Your task to perform on an android device: toggle wifi Image 0: 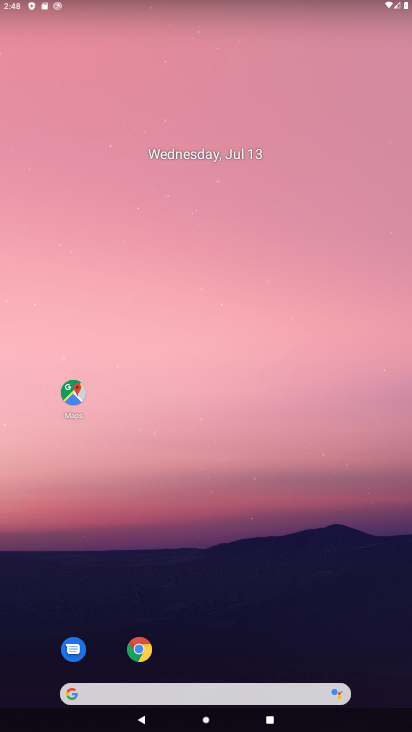
Step 0: drag from (206, 668) to (248, 19)
Your task to perform on an android device: toggle wifi Image 1: 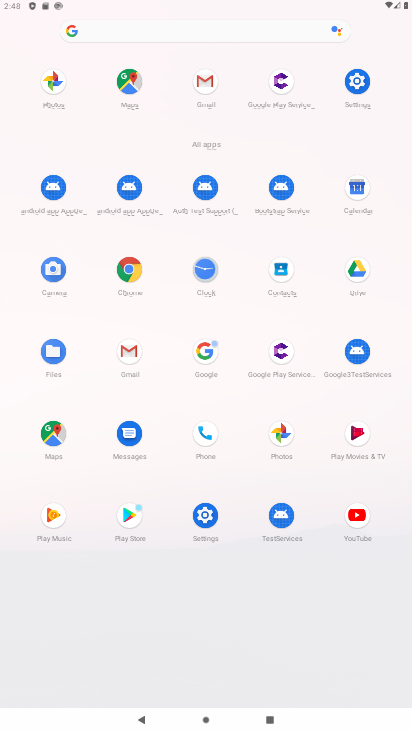
Step 1: click (351, 80)
Your task to perform on an android device: toggle wifi Image 2: 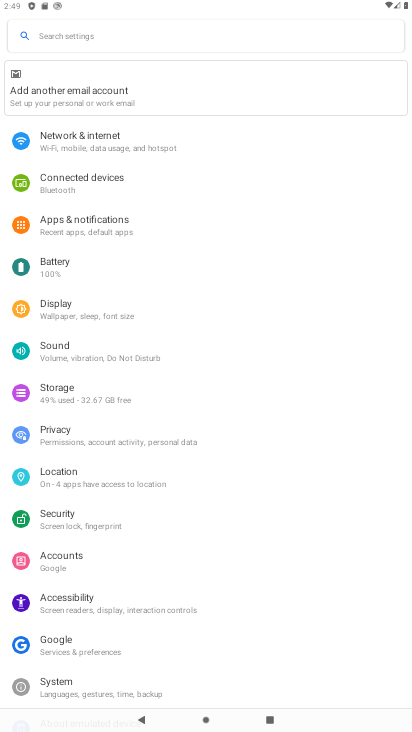
Step 2: drag from (173, 2) to (205, 535)
Your task to perform on an android device: toggle wifi Image 3: 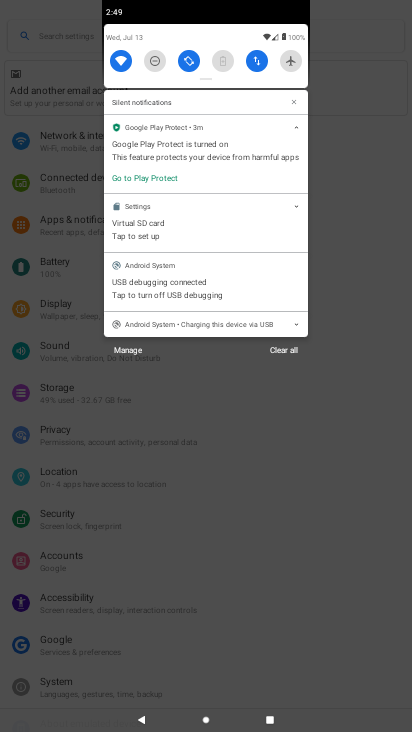
Step 3: click (122, 60)
Your task to perform on an android device: toggle wifi Image 4: 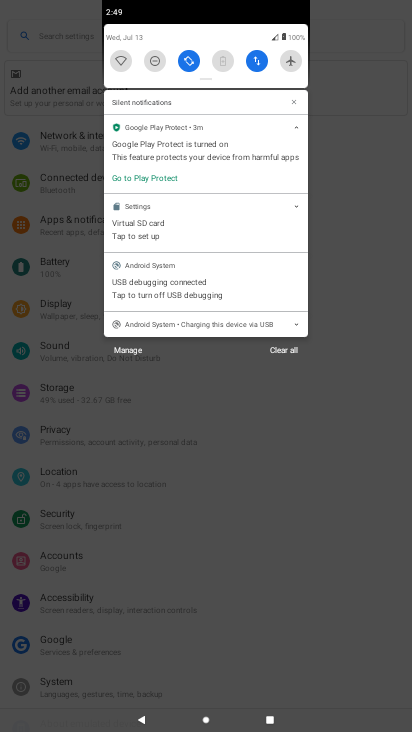
Step 4: task complete